Your task to perform on an android device: toggle pop-ups in chrome Image 0: 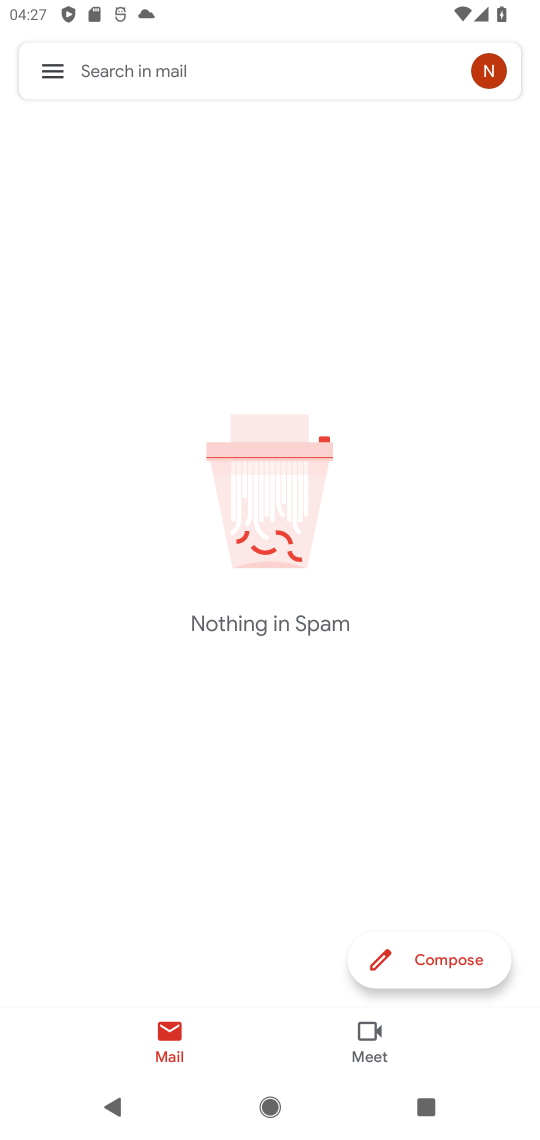
Step 0: press home button
Your task to perform on an android device: toggle pop-ups in chrome Image 1: 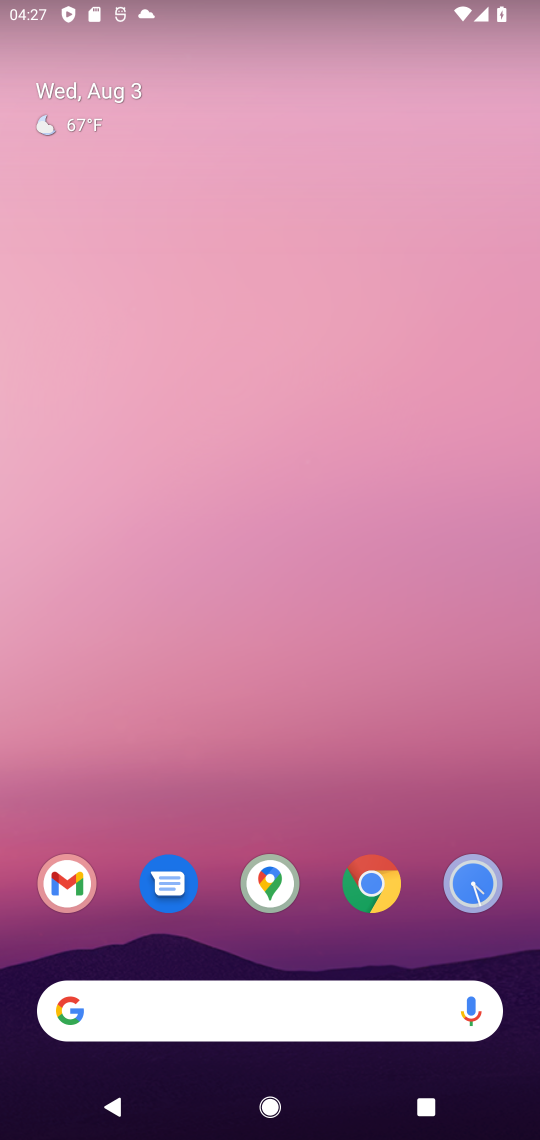
Step 1: drag from (272, 863) to (484, 2)
Your task to perform on an android device: toggle pop-ups in chrome Image 2: 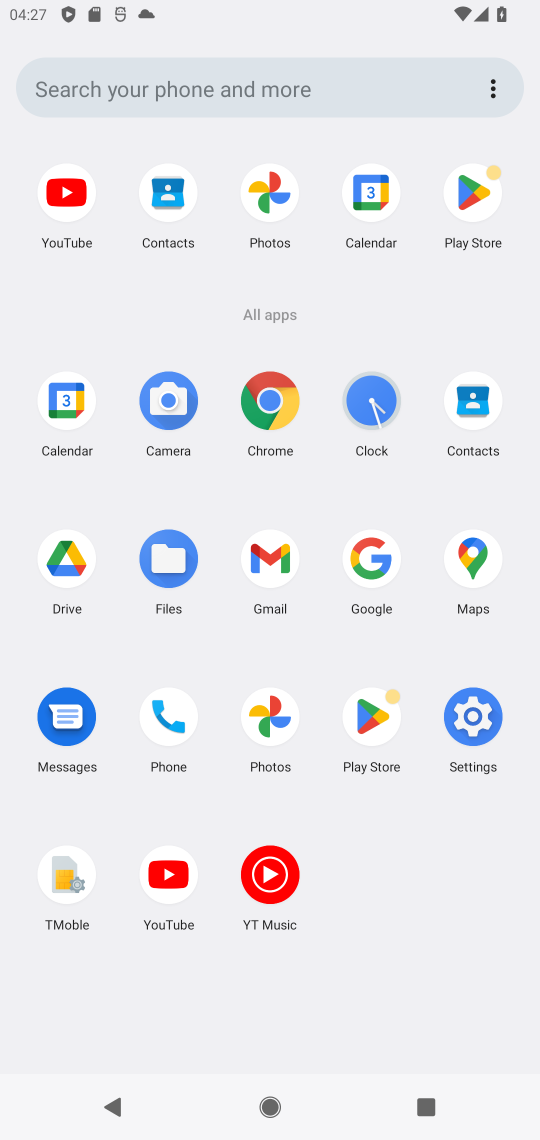
Step 2: click (276, 431)
Your task to perform on an android device: toggle pop-ups in chrome Image 3: 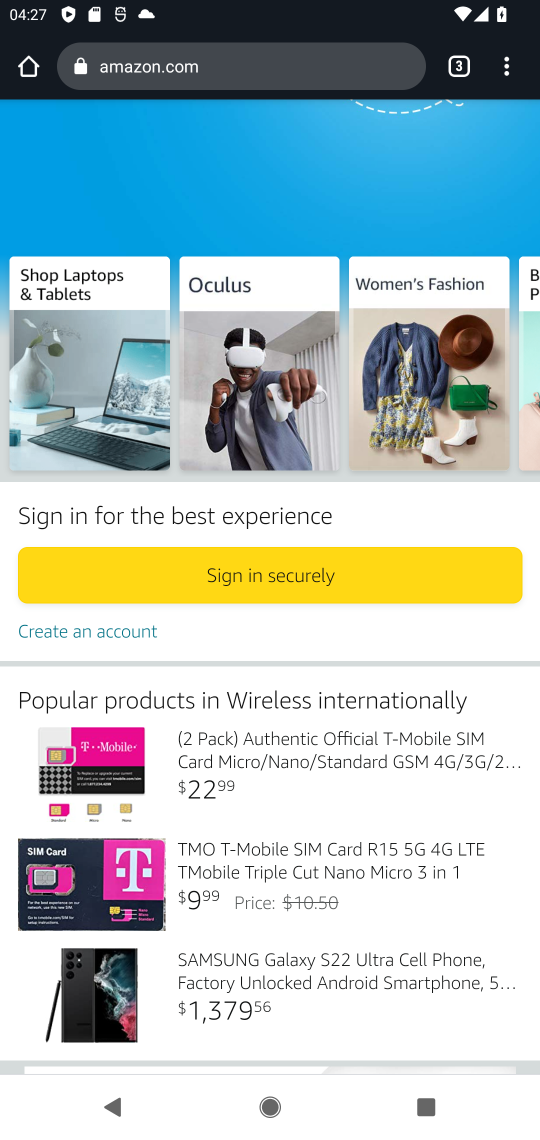
Step 3: click (505, 69)
Your task to perform on an android device: toggle pop-ups in chrome Image 4: 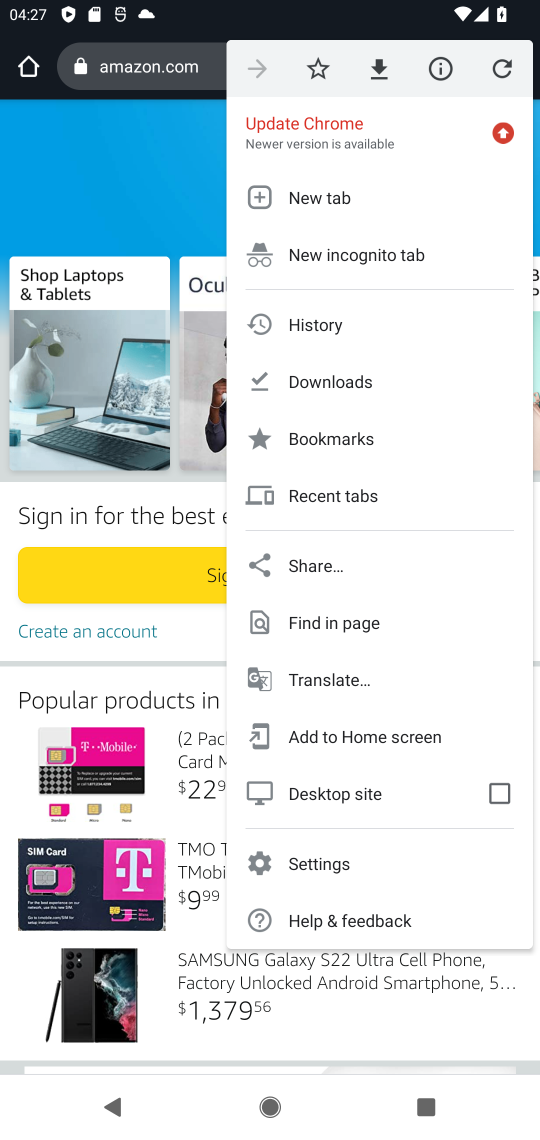
Step 4: click (328, 862)
Your task to perform on an android device: toggle pop-ups in chrome Image 5: 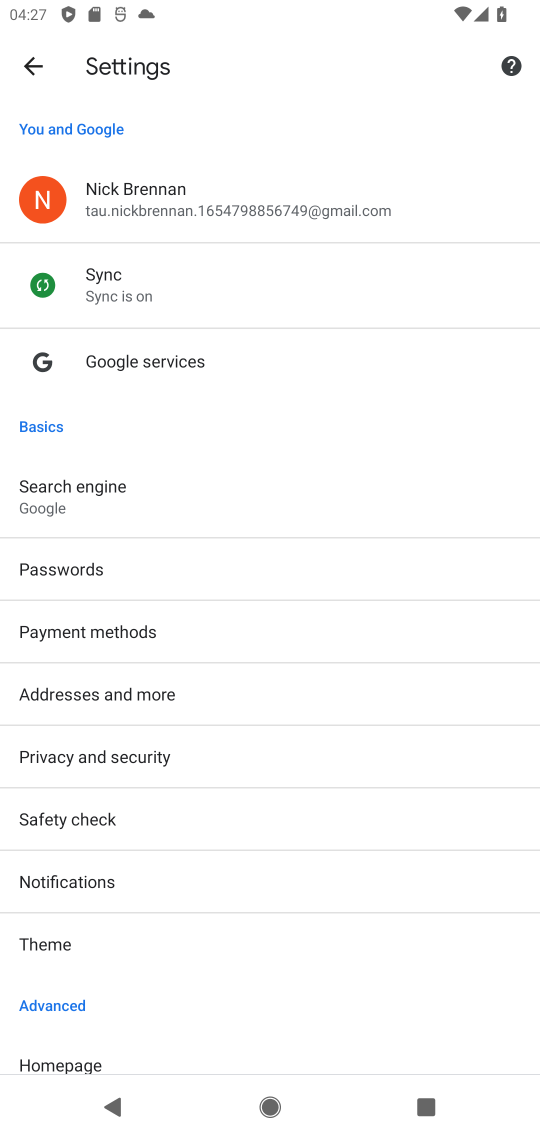
Step 5: drag from (95, 931) to (182, 436)
Your task to perform on an android device: toggle pop-ups in chrome Image 6: 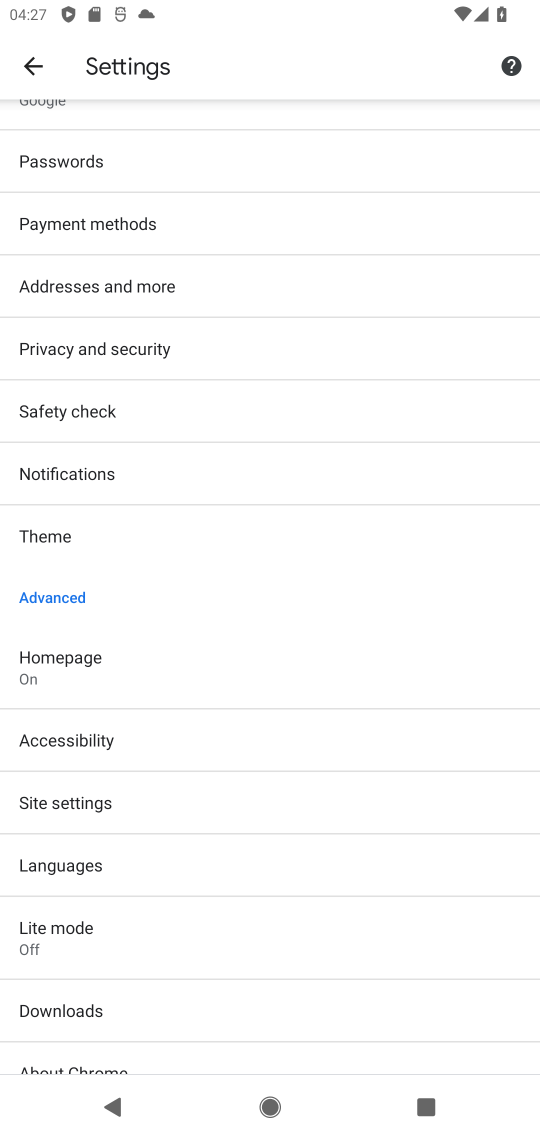
Step 6: click (105, 790)
Your task to perform on an android device: toggle pop-ups in chrome Image 7: 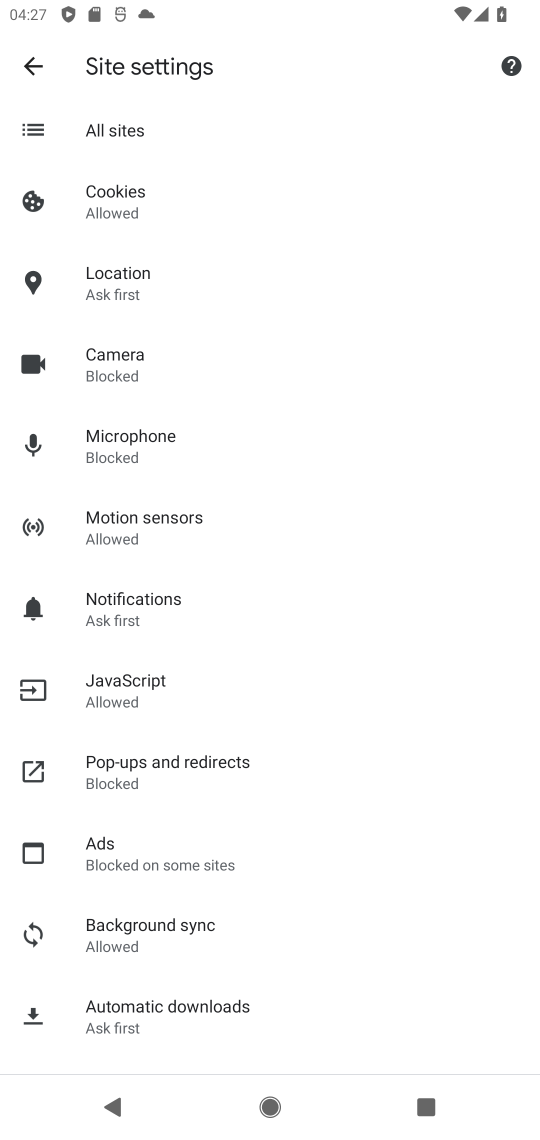
Step 7: click (151, 761)
Your task to perform on an android device: toggle pop-ups in chrome Image 8: 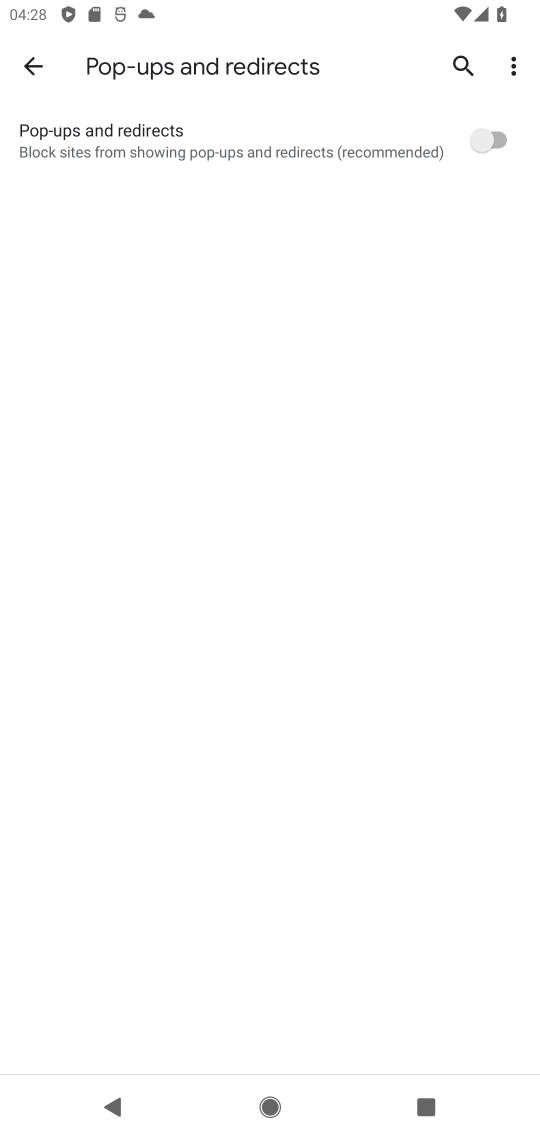
Step 8: click (468, 160)
Your task to perform on an android device: toggle pop-ups in chrome Image 9: 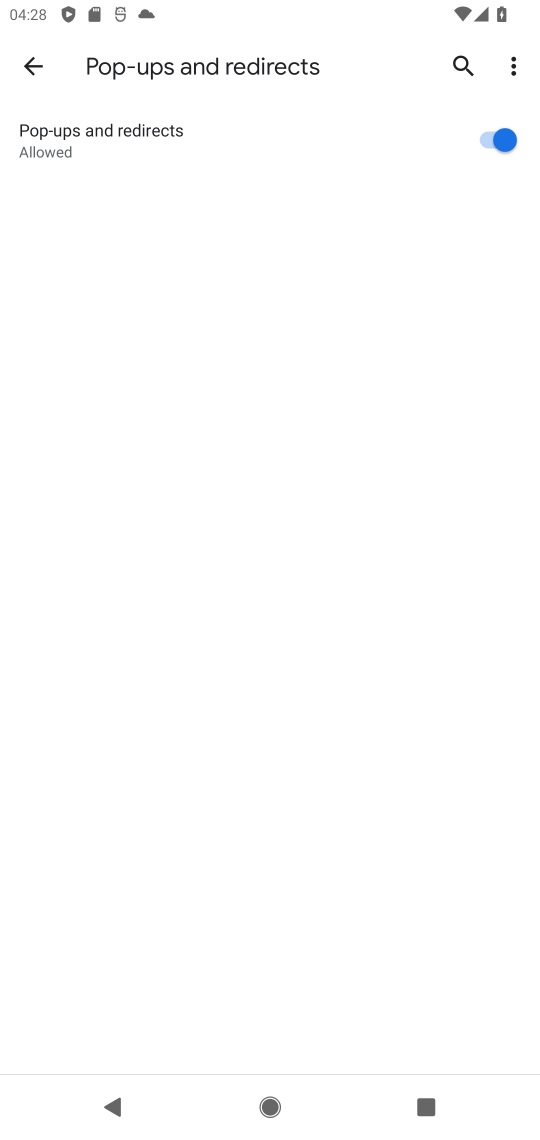
Step 9: task complete